Your task to perform on an android device: open app "Microsoft Outlook" Image 0: 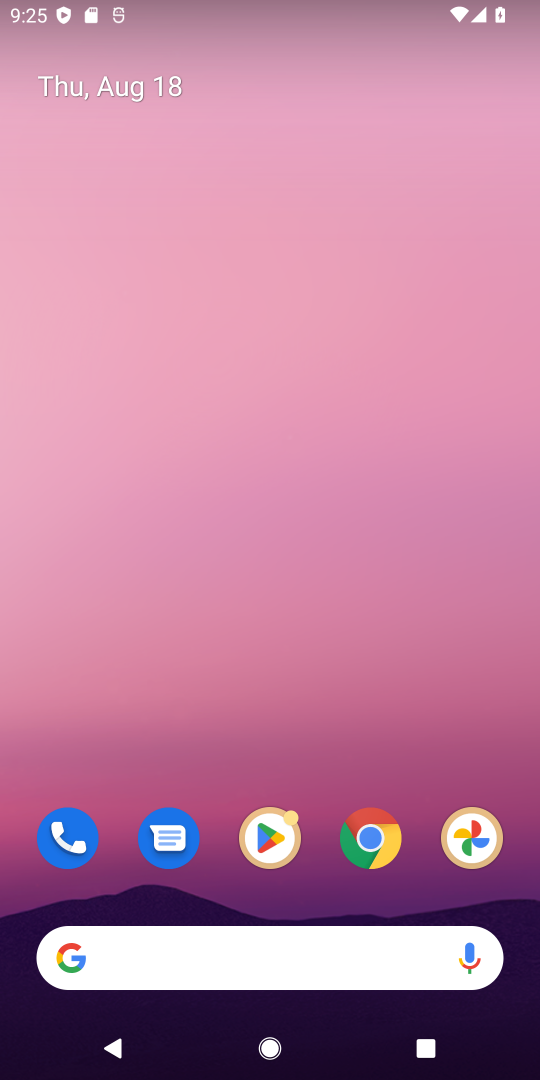
Step 0: click (275, 823)
Your task to perform on an android device: open app "Microsoft Outlook" Image 1: 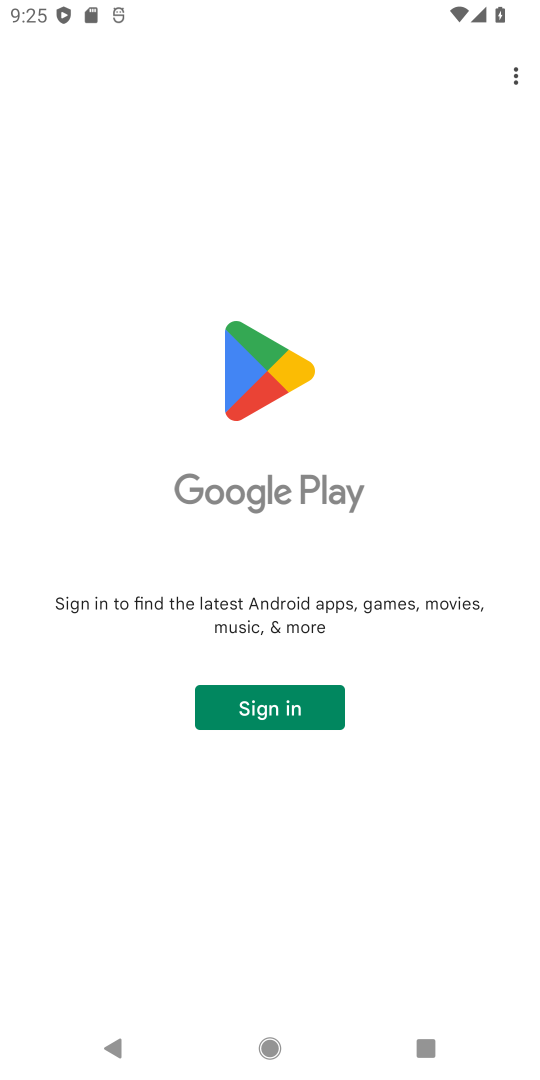
Step 1: press home button
Your task to perform on an android device: open app "Microsoft Outlook" Image 2: 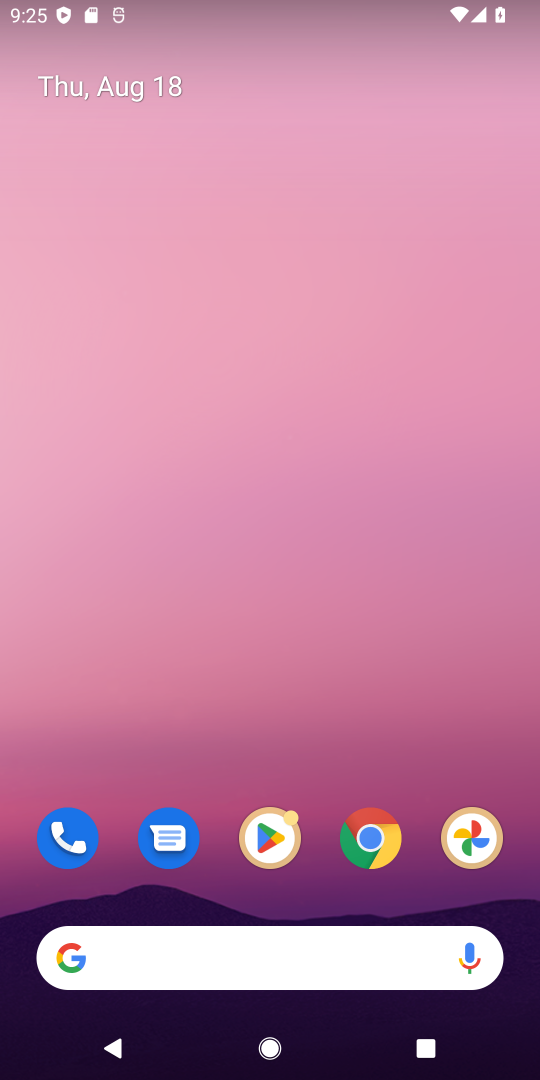
Step 2: click (359, 834)
Your task to perform on an android device: open app "Microsoft Outlook" Image 3: 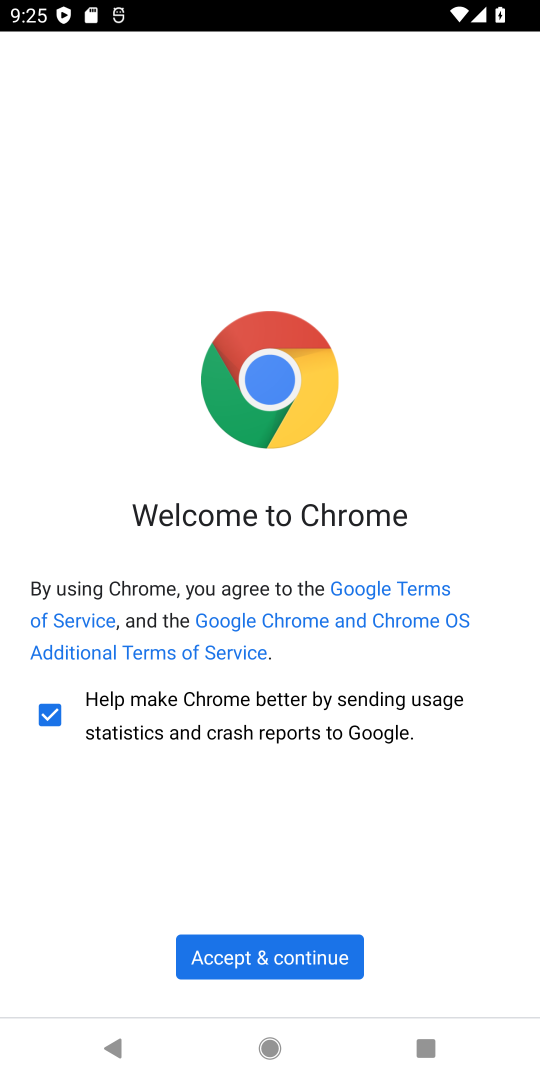
Step 3: click (327, 967)
Your task to perform on an android device: open app "Microsoft Outlook" Image 4: 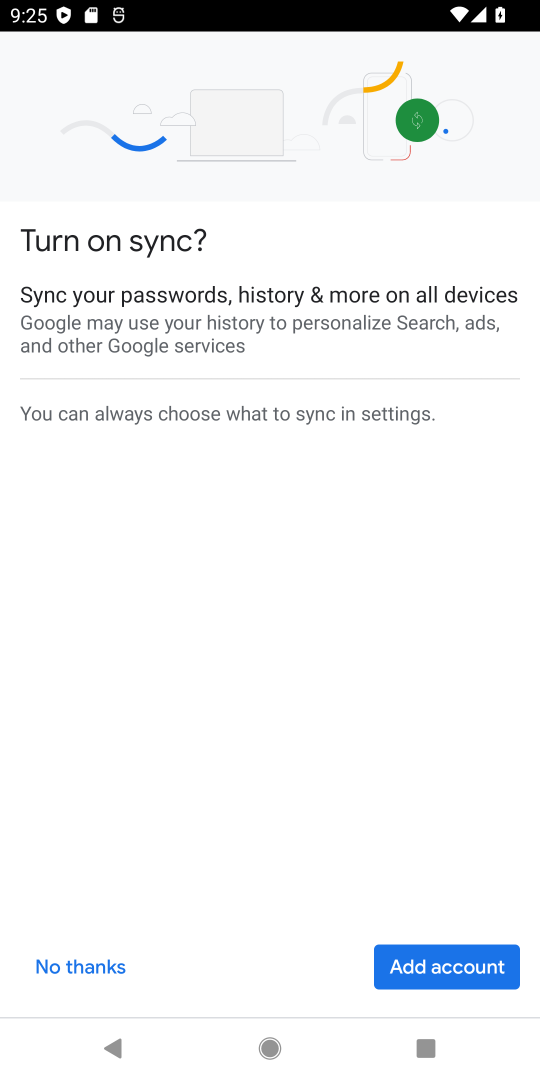
Step 4: click (408, 967)
Your task to perform on an android device: open app "Microsoft Outlook" Image 5: 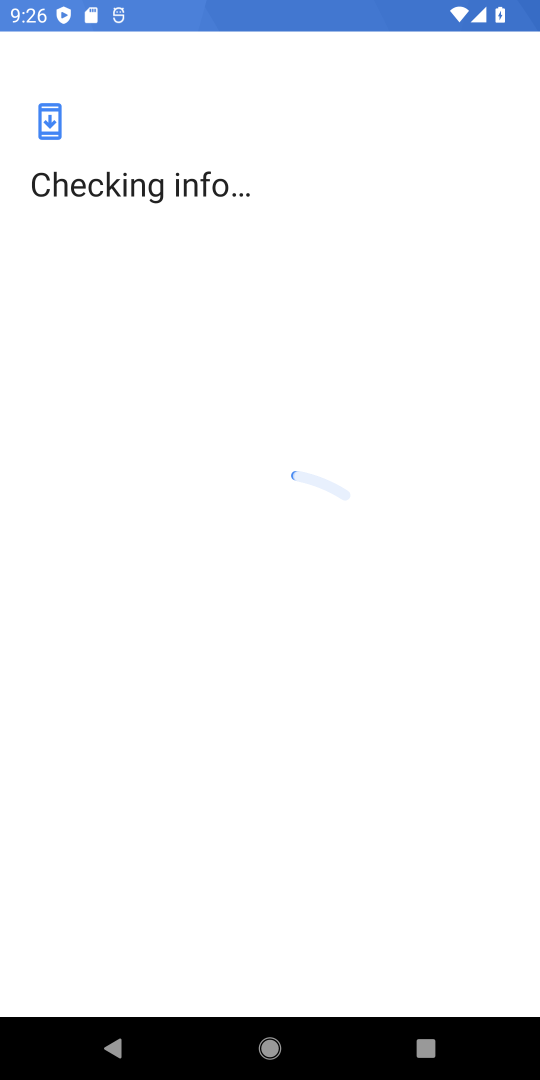
Step 5: task complete